Your task to perform on an android device: create a new album in the google photos Image 0: 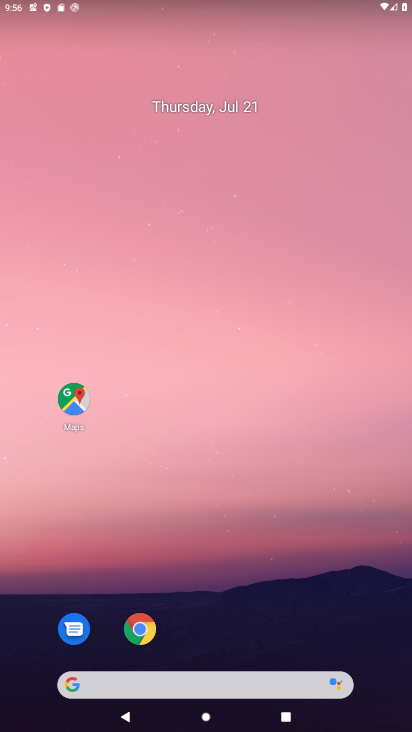
Step 0: drag from (225, 647) to (152, 175)
Your task to perform on an android device: create a new album in the google photos Image 1: 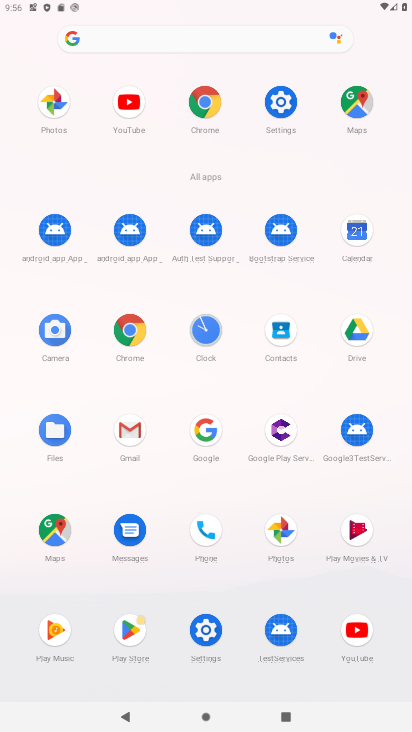
Step 1: click (49, 114)
Your task to perform on an android device: create a new album in the google photos Image 2: 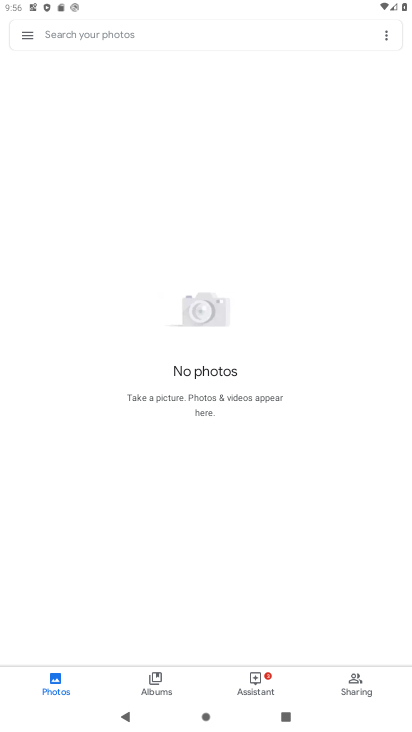
Step 2: task complete